Your task to perform on an android device: Search for usb-b on newegg, select the first entry, add it to the cart, then select checkout. Image 0: 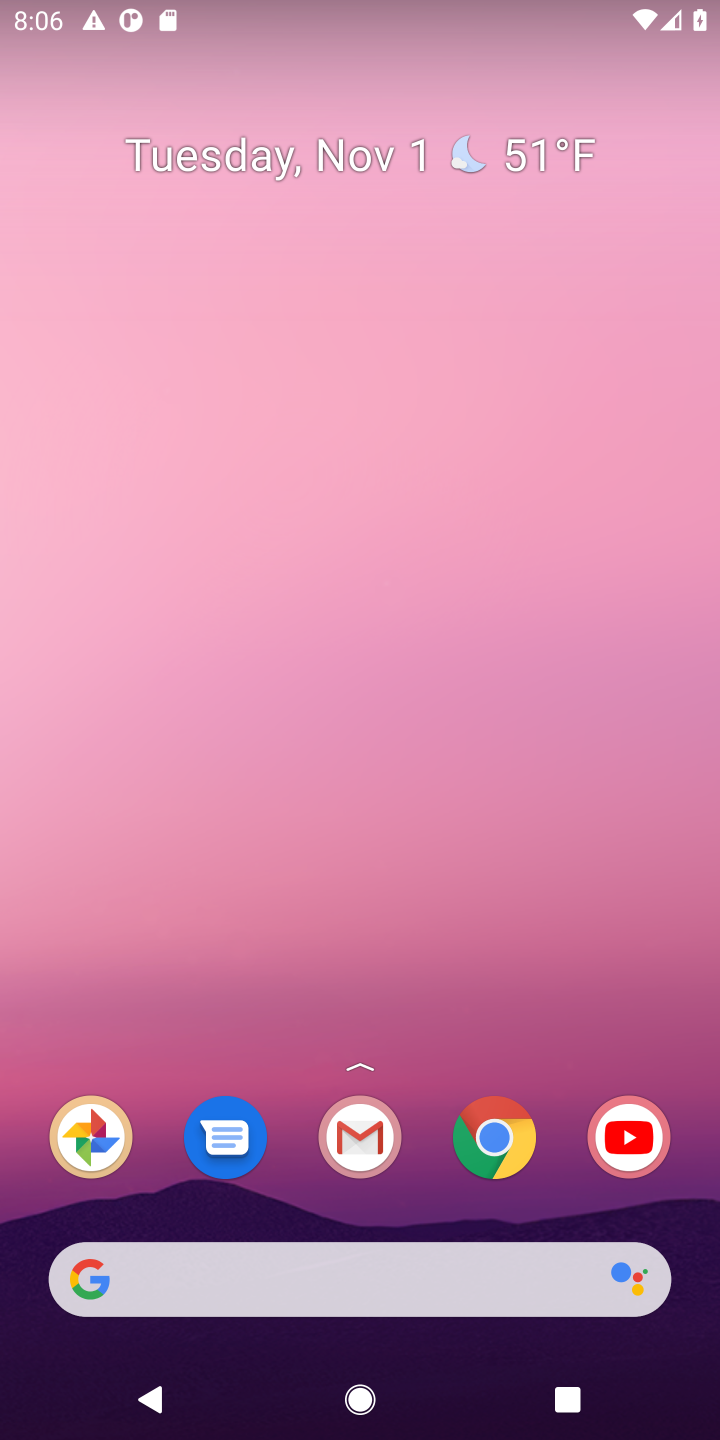
Step 0: click (465, 1142)
Your task to perform on an android device: Search for usb-b on newegg, select the first entry, add it to the cart, then select checkout. Image 1: 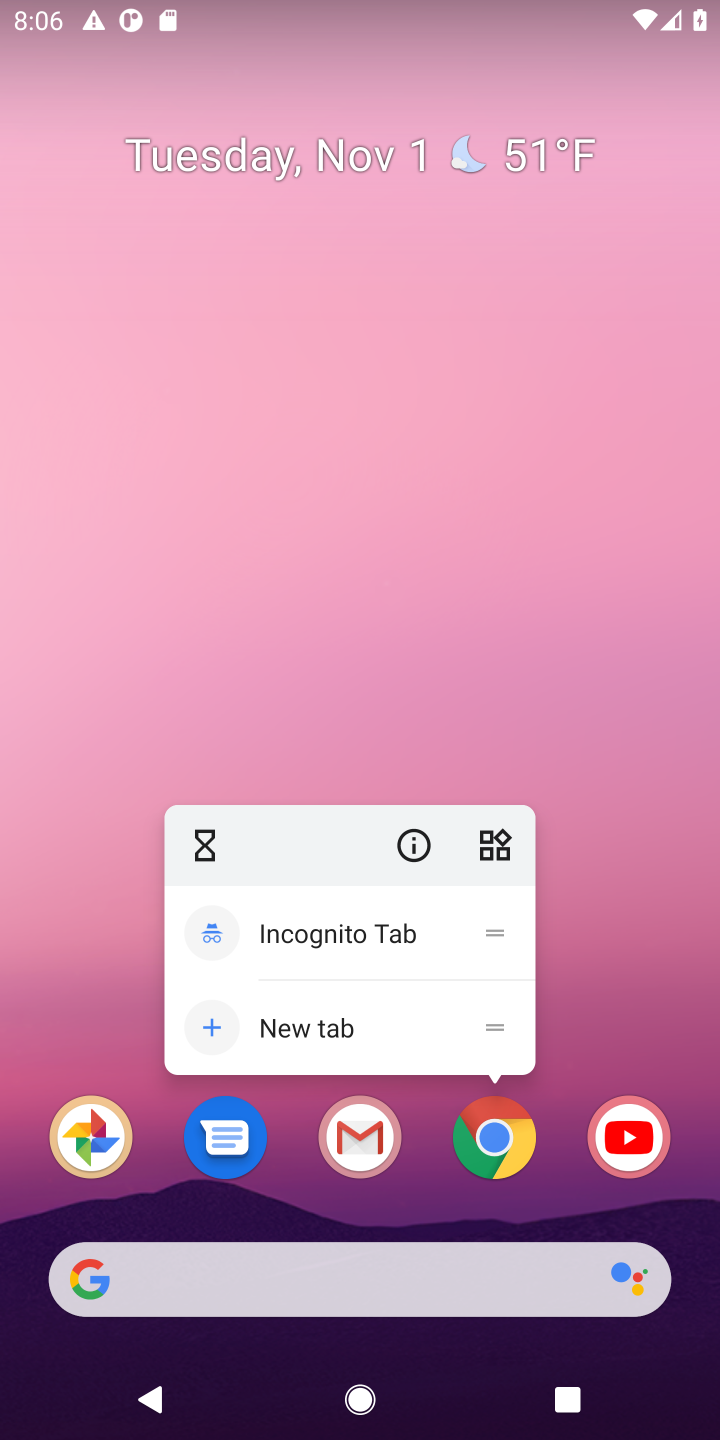
Step 1: click (483, 1147)
Your task to perform on an android device: Search for usb-b on newegg, select the first entry, add it to the cart, then select checkout. Image 2: 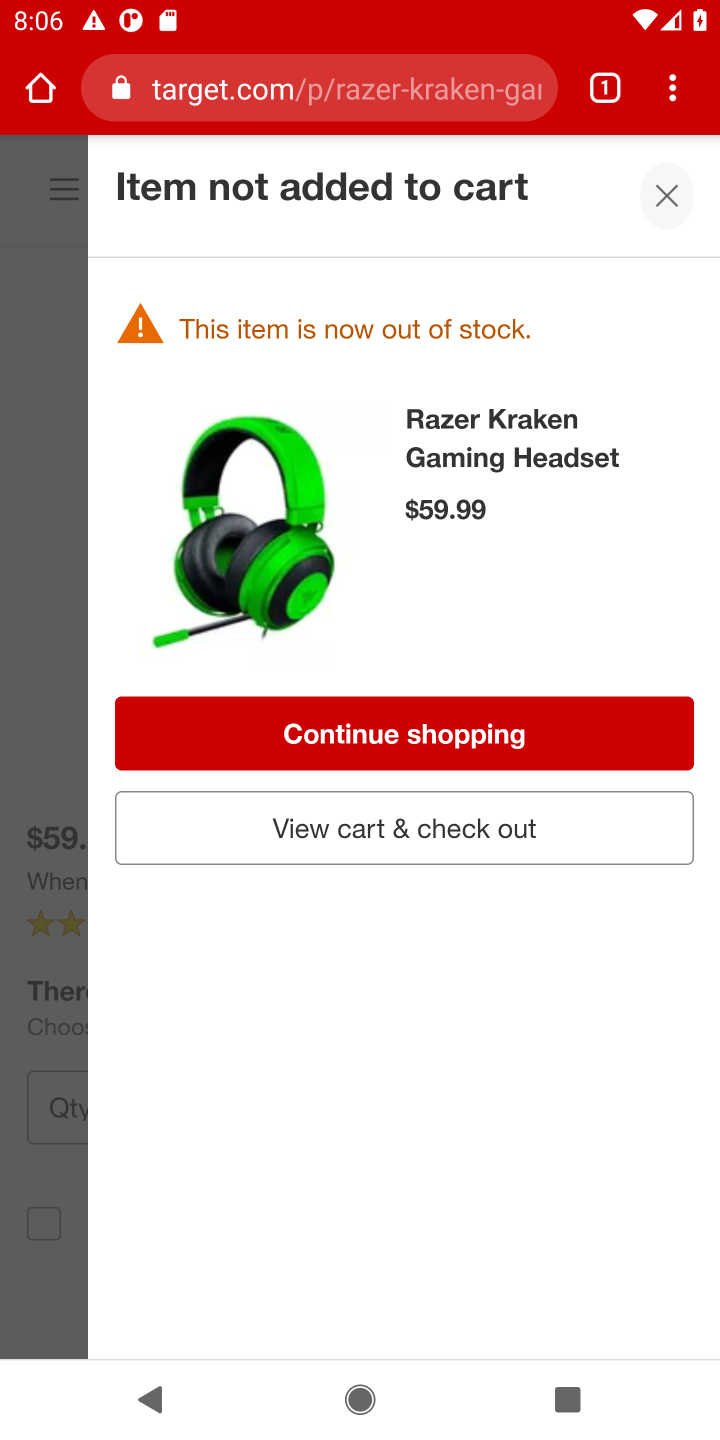
Step 2: click (305, 68)
Your task to perform on an android device: Search for usb-b on newegg, select the first entry, add it to the cart, then select checkout. Image 3: 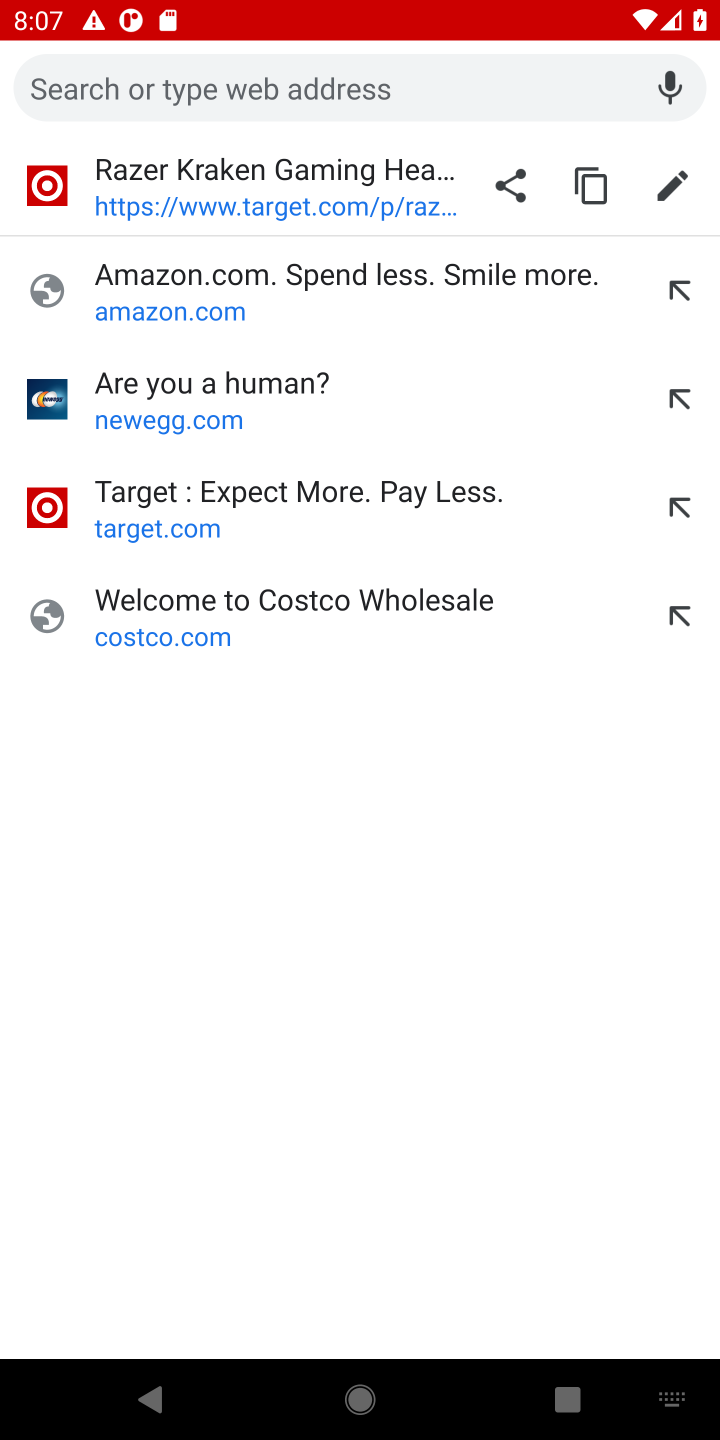
Step 3: type "newegg"
Your task to perform on an android device: Search for usb-b on newegg, select the first entry, add it to the cart, then select checkout. Image 4: 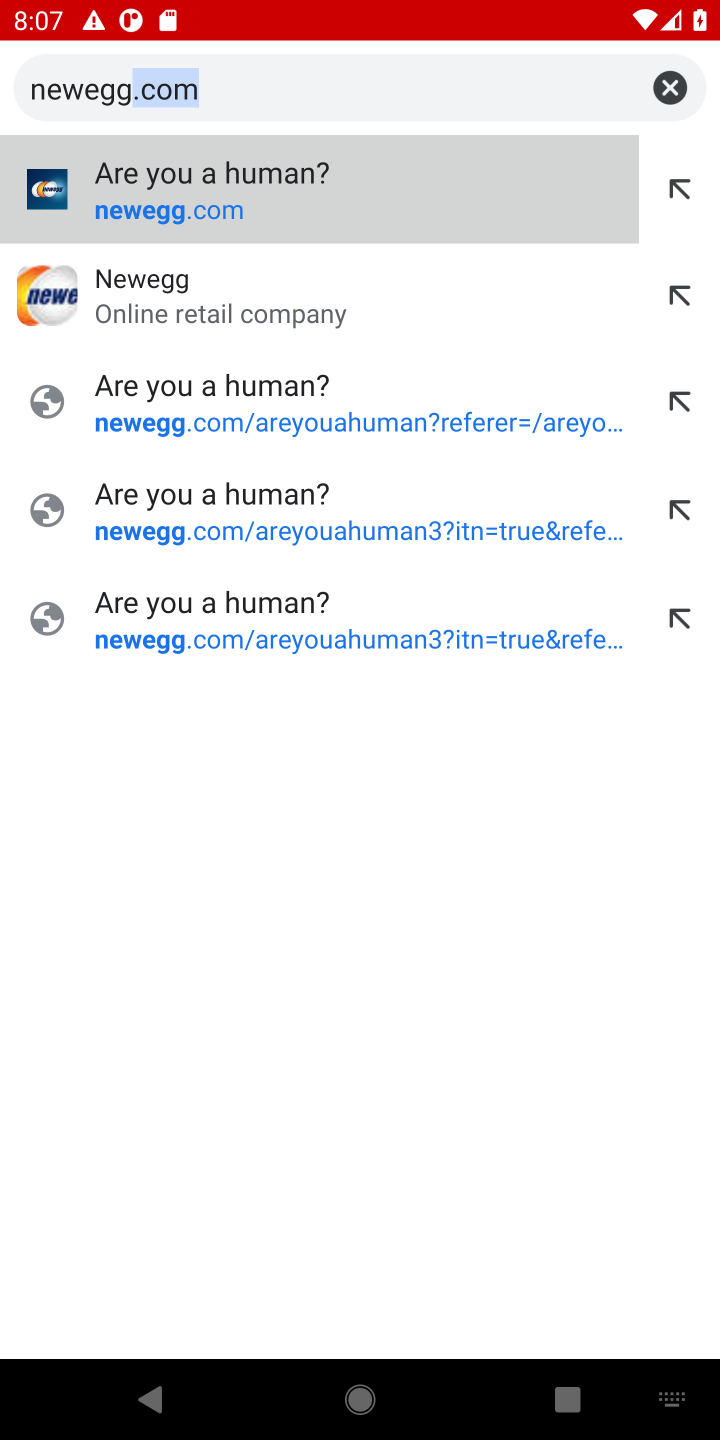
Step 4: click (268, 215)
Your task to perform on an android device: Search for usb-b on newegg, select the first entry, add it to the cart, then select checkout. Image 5: 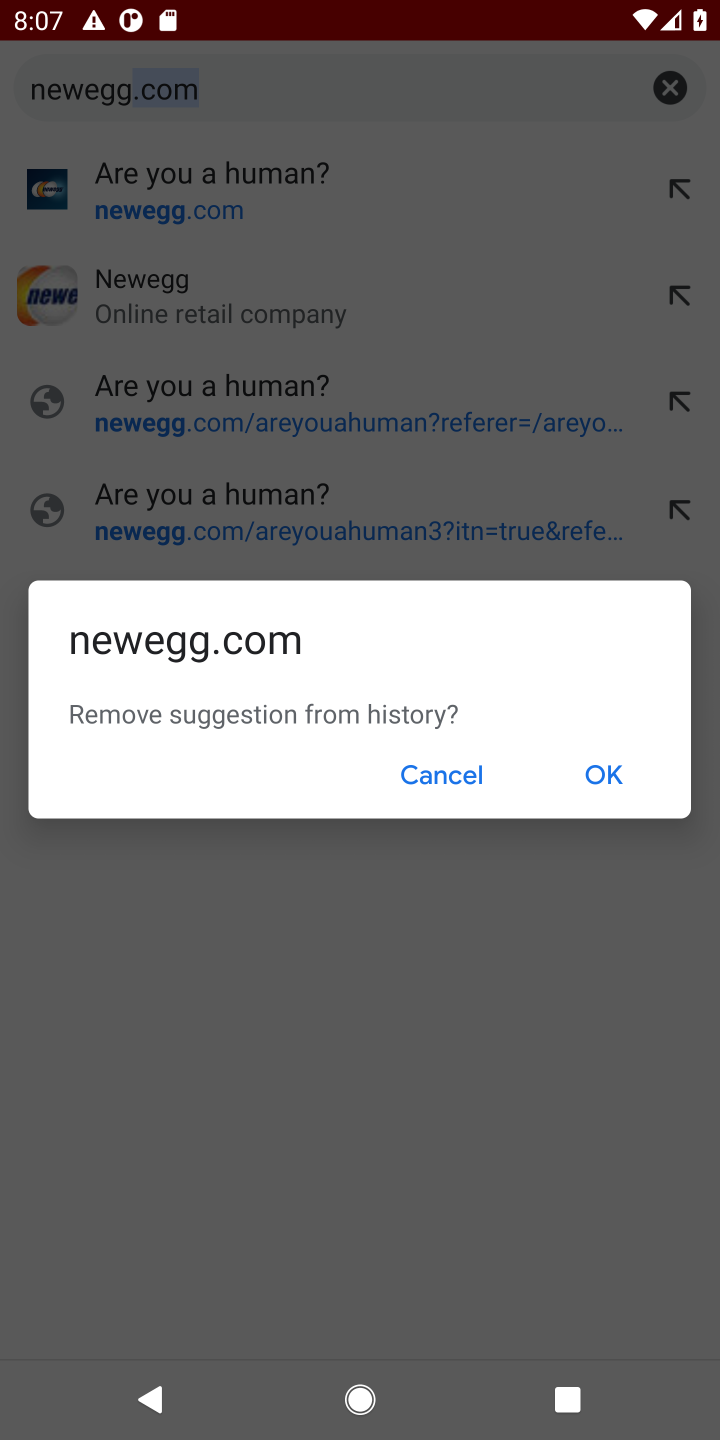
Step 5: click (503, 769)
Your task to perform on an android device: Search for usb-b on newegg, select the first entry, add it to the cart, then select checkout. Image 6: 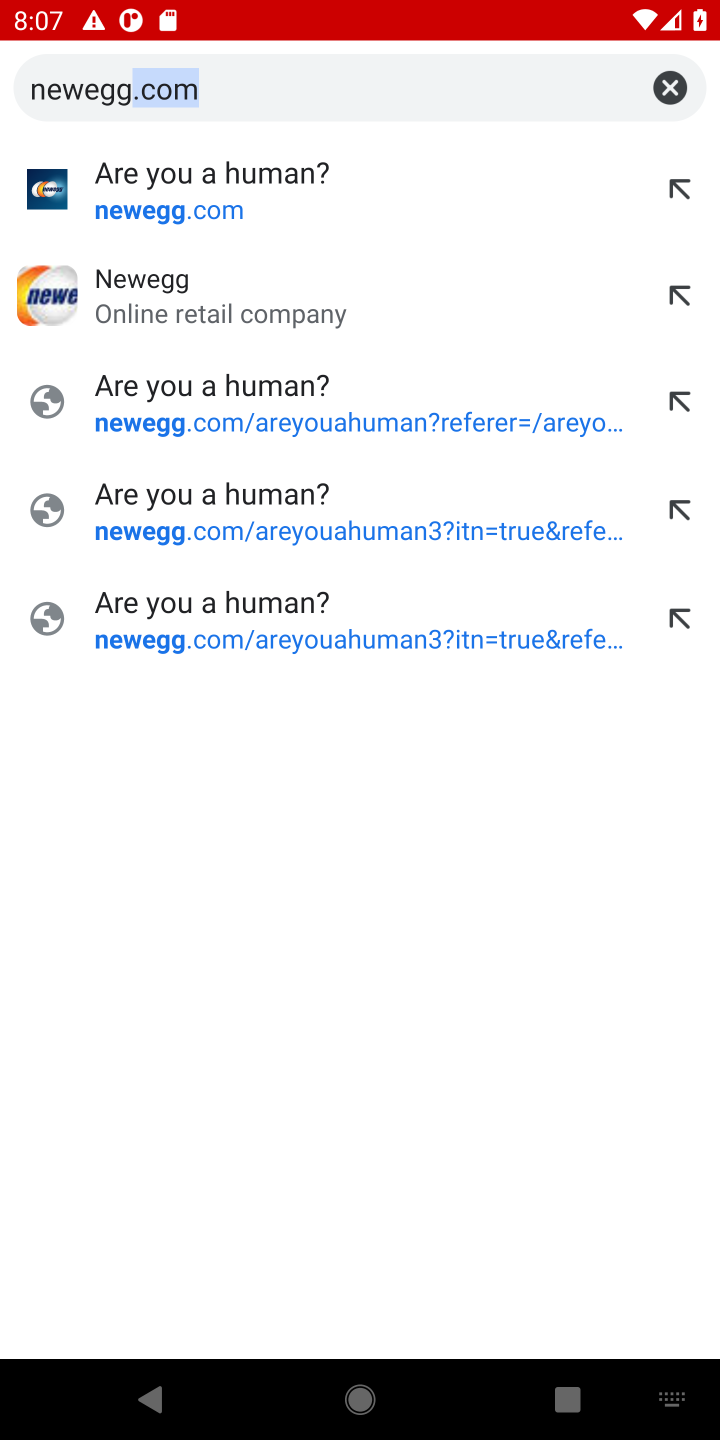
Step 6: click (278, 213)
Your task to perform on an android device: Search for usb-b on newegg, select the first entry, add it to the cart, then select checkout. Image 7: 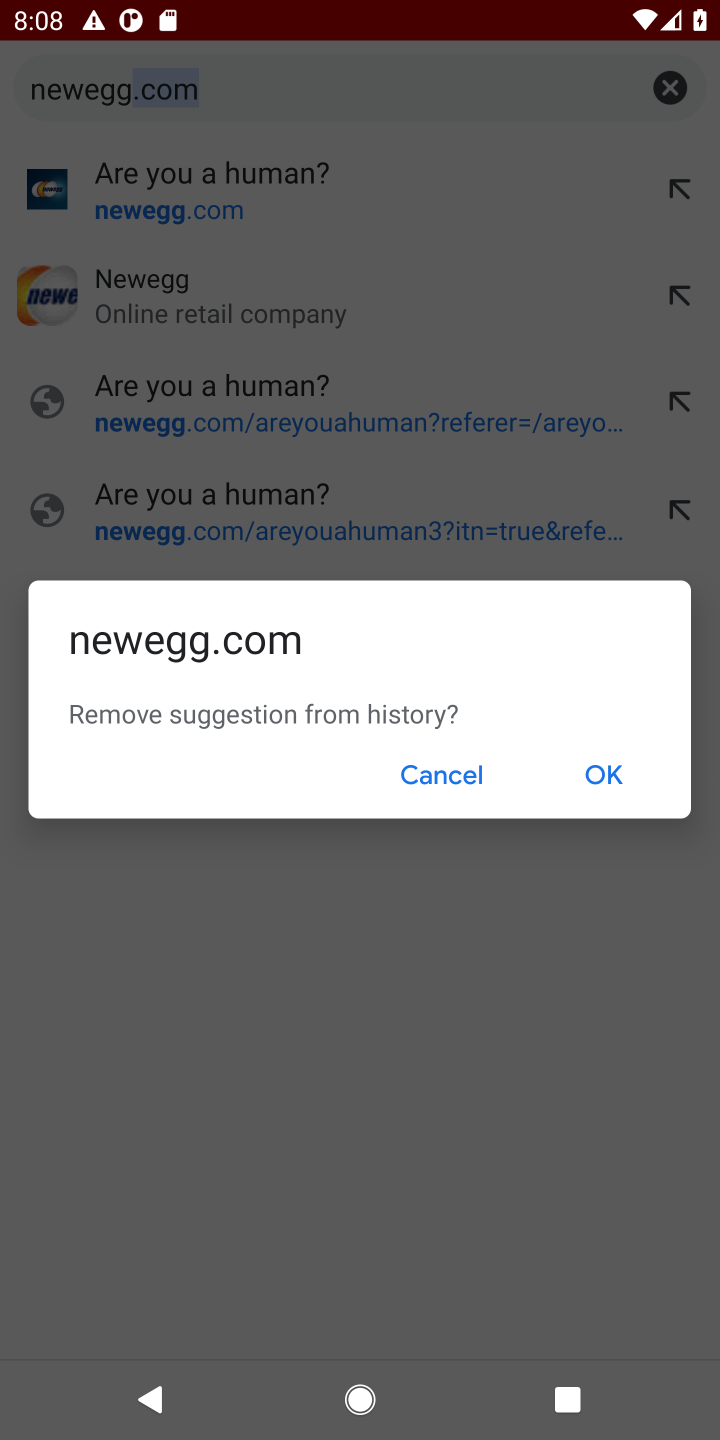
Step 7: task complete